Your task to perform on an android device: What's the time in New York? Image 0: 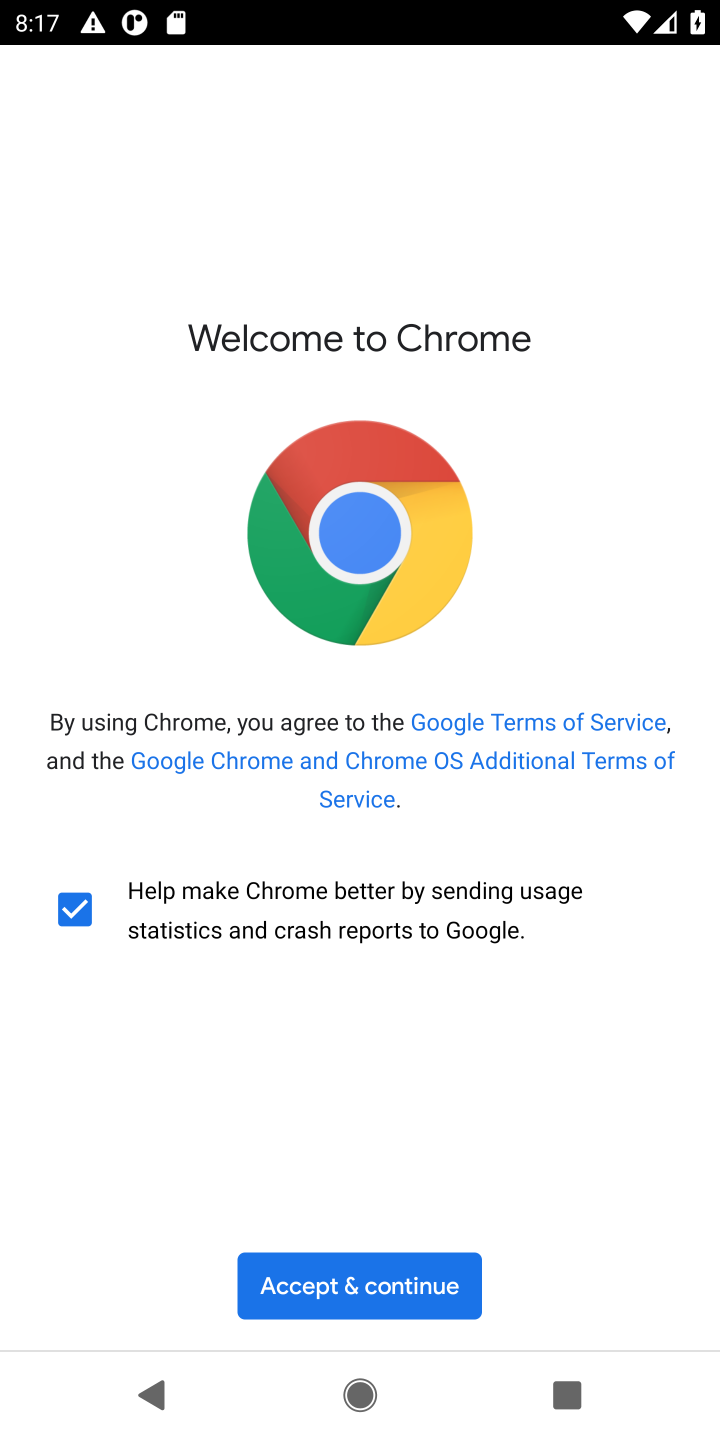
Step 0: click (352, 1299)
Your task to perform on an android device: What's the time in New York? Image 1: 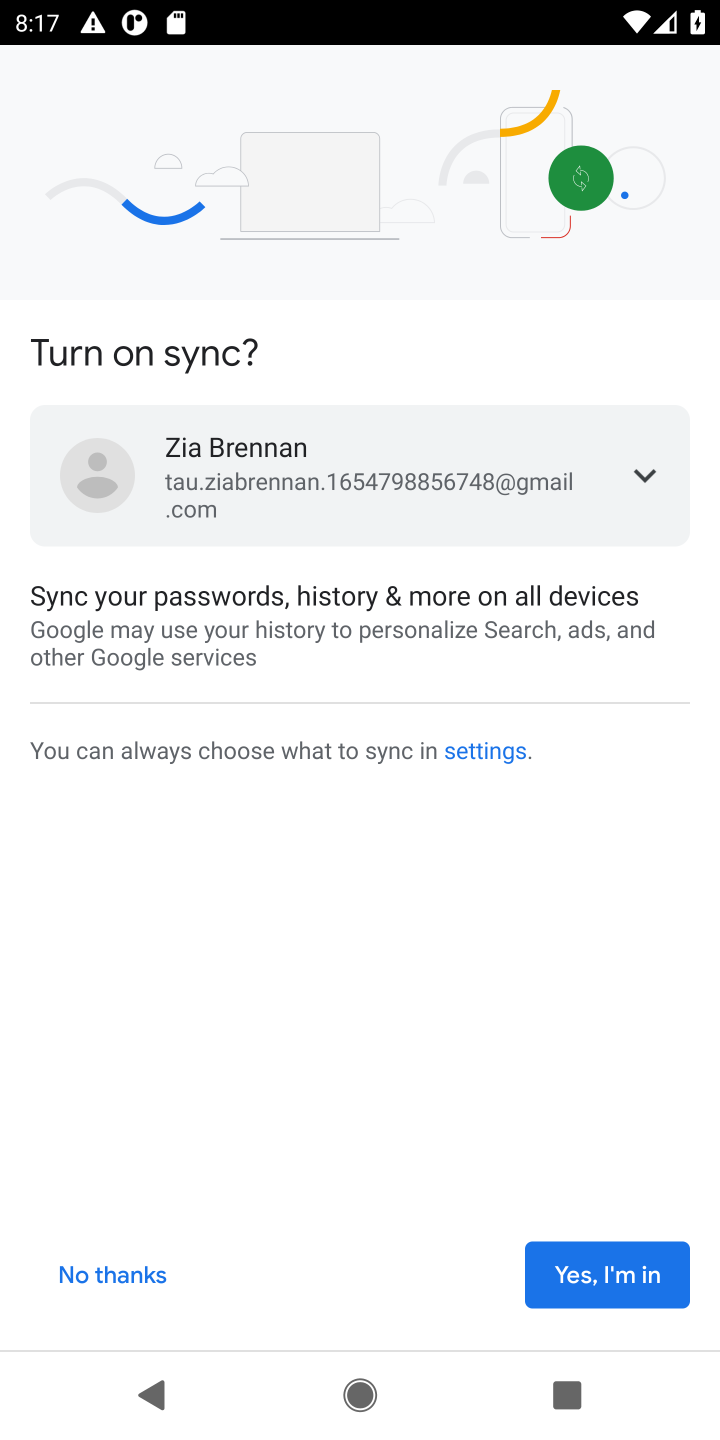
Step 1: click (640, 1275)
Your task to perform on an android device: What's the time in New York? Image 2: 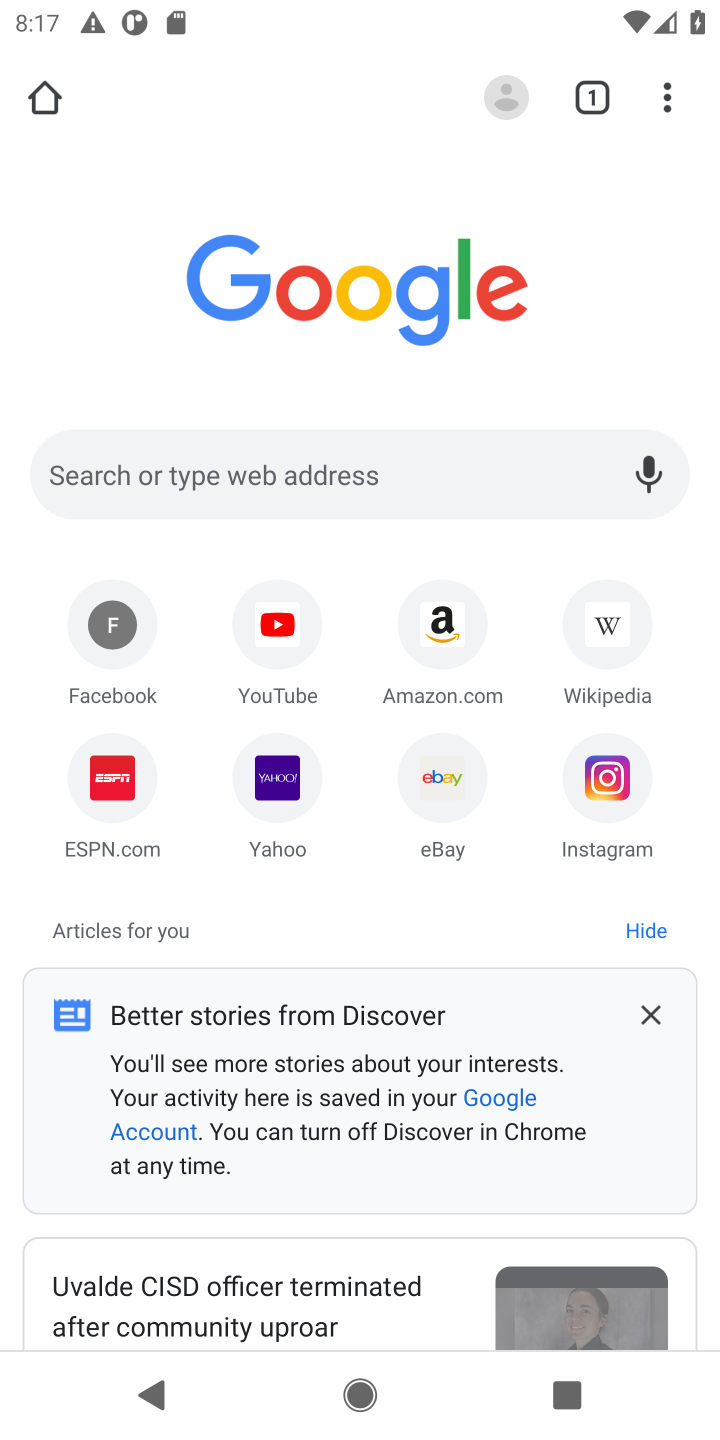
Step 2: click (417, 444)
Your task to perform on an android device: What's the time in New York? Image 3: 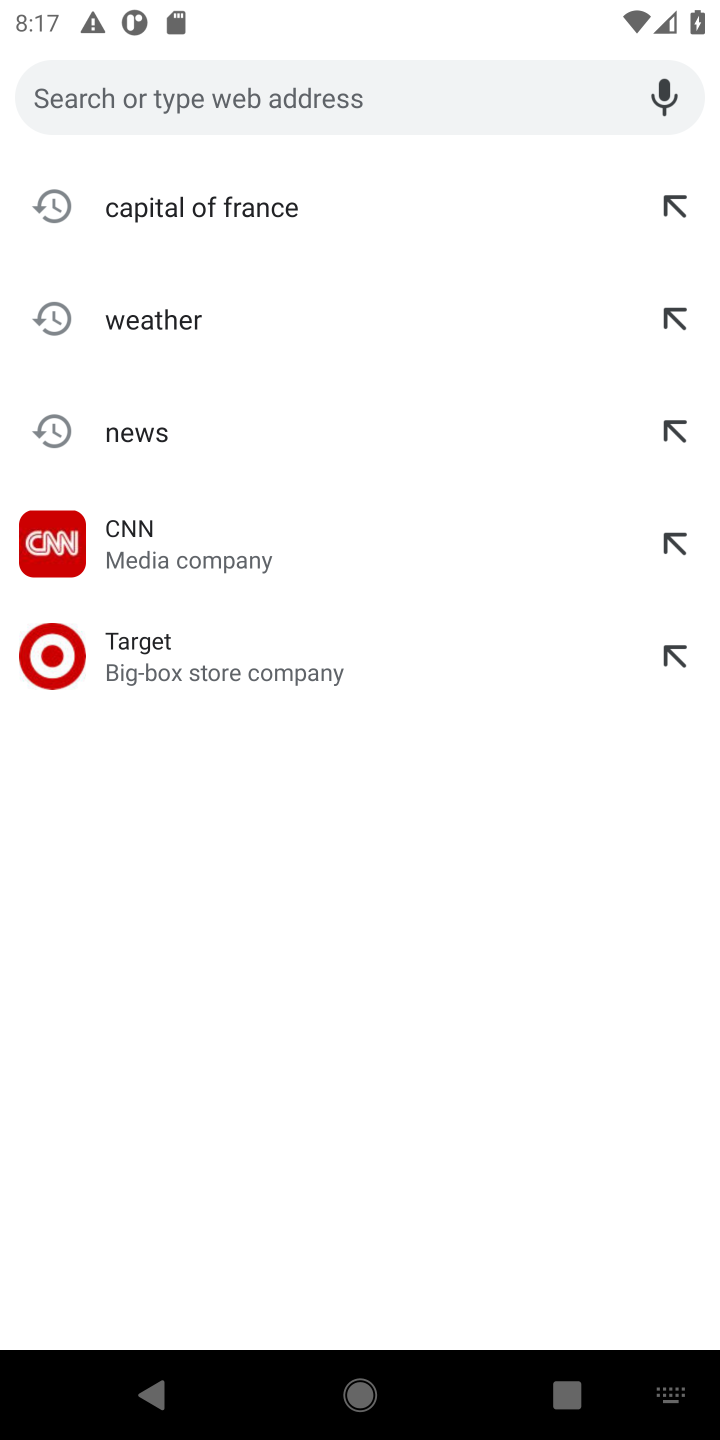
Step 3: type "What's the time in New York?"
Your task to perform on an android device: What's the time in New York? Image 4: 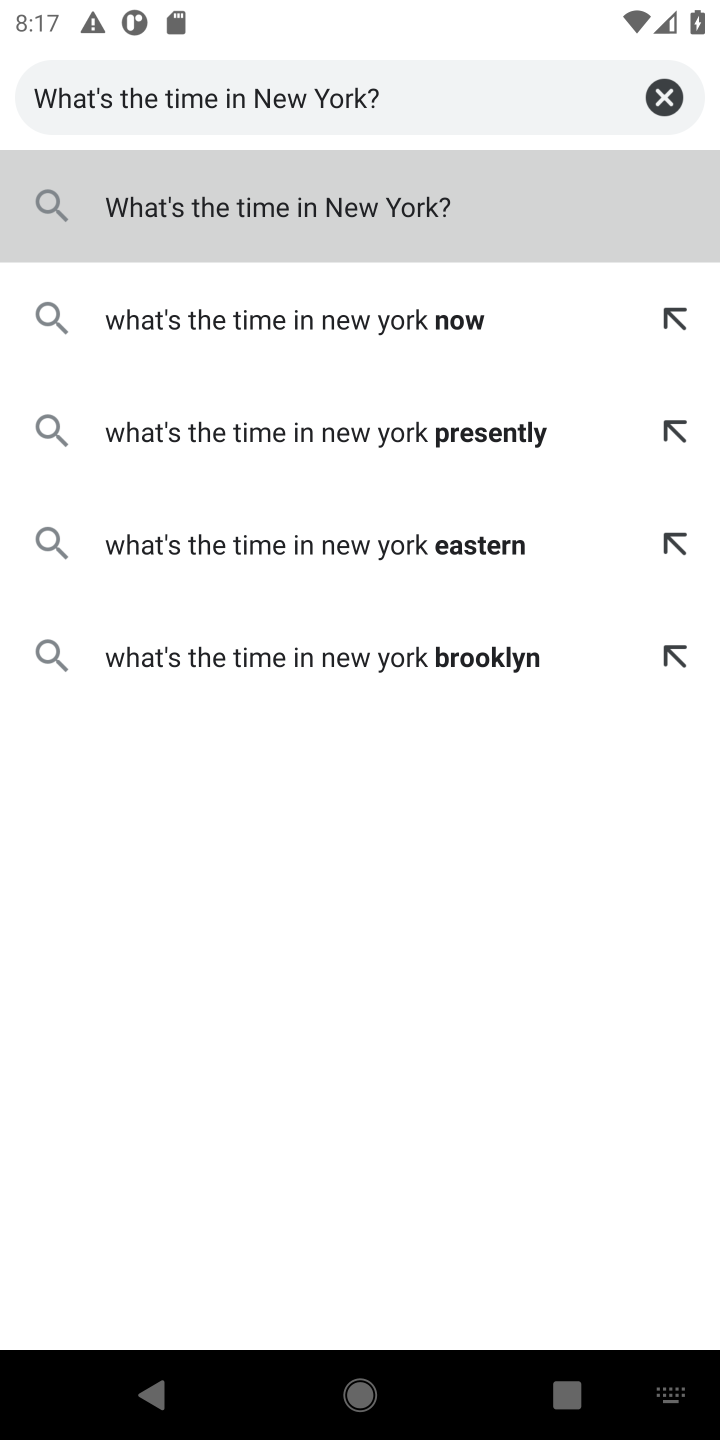
Step 4: click (392, 207)
Your task to perform on an android device: What's the time in New York? Image 5: 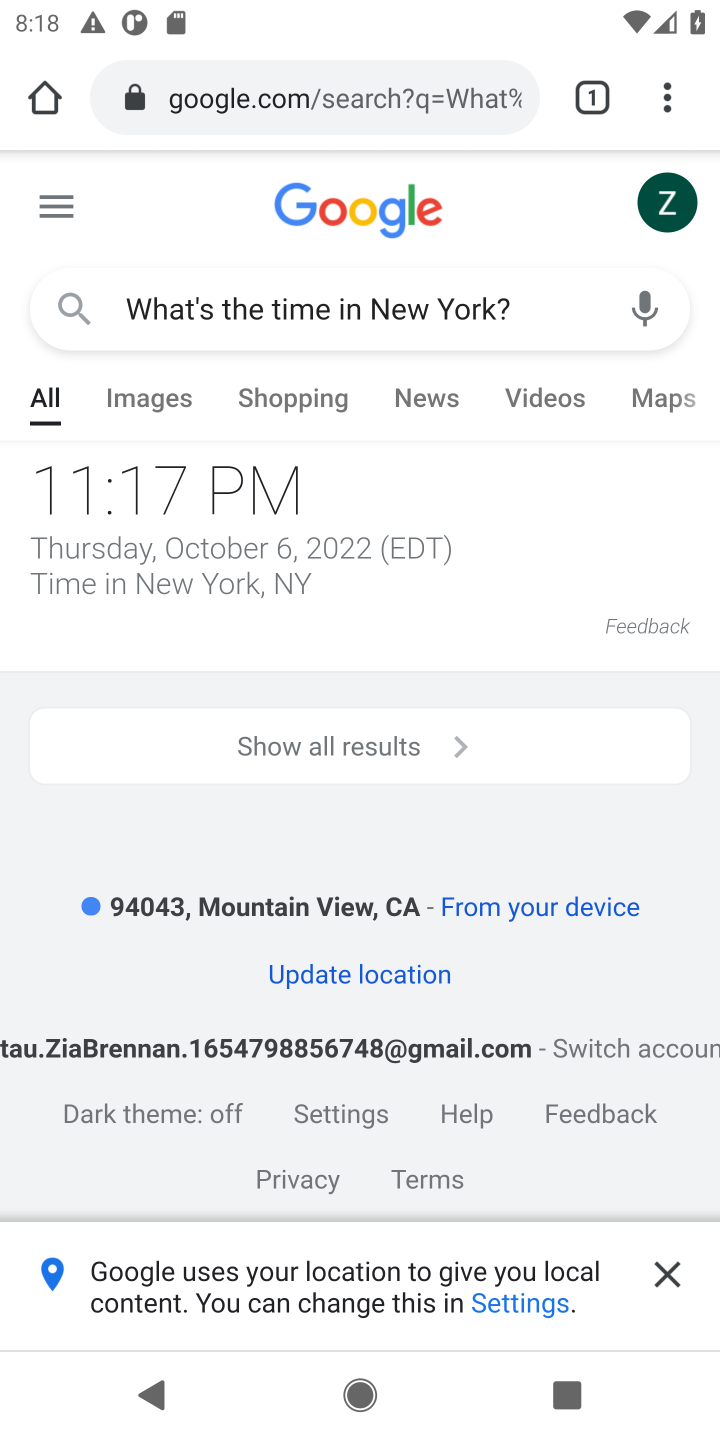
Step 5: task complete